Your task to perform on an android device: open device folders in google photos Image 0: 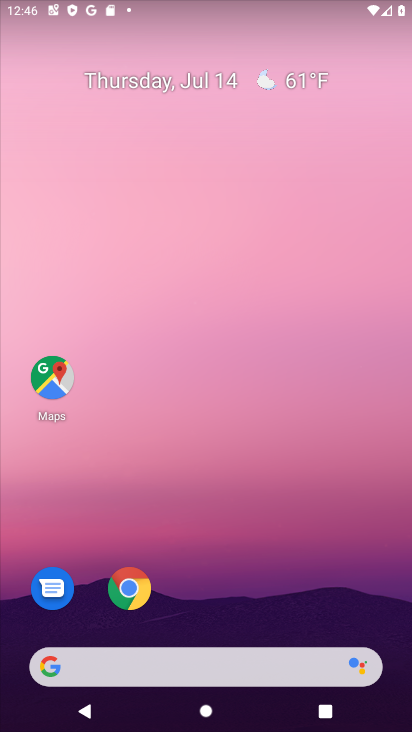
Step 0: drag from (218, 606) to (266, 3)
Your task to perform on an android device: open device folders in google photos Image 1: 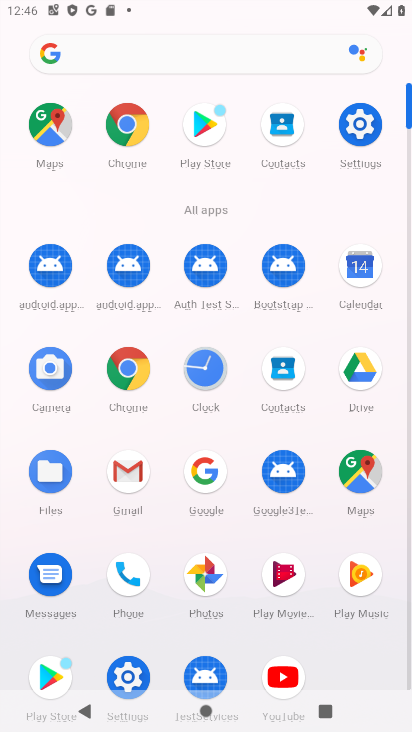
Step 1: click (207, 583)
Your task to perform on an android device: open device folders in google photos Image 2: 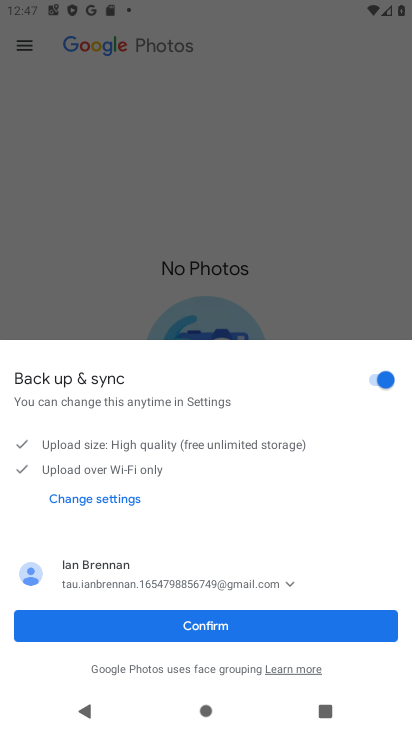
Step 2: click (202, 628)
Your task to perform on an android device: open device folders in google photos Image 3: 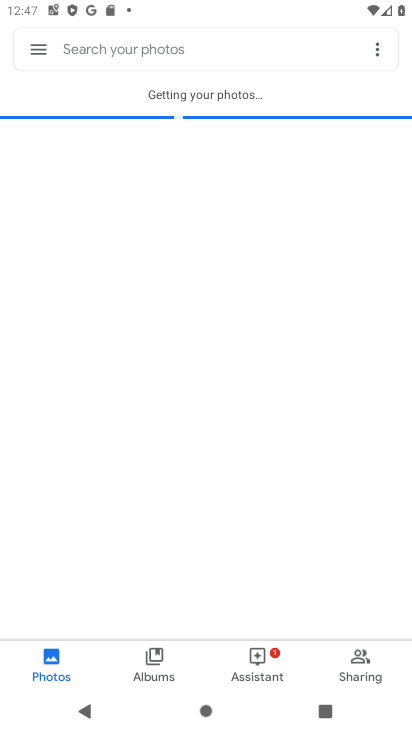
Step 3: click (41, 41)
Your task to perform on an android device: open device folders in google photos Image 4: 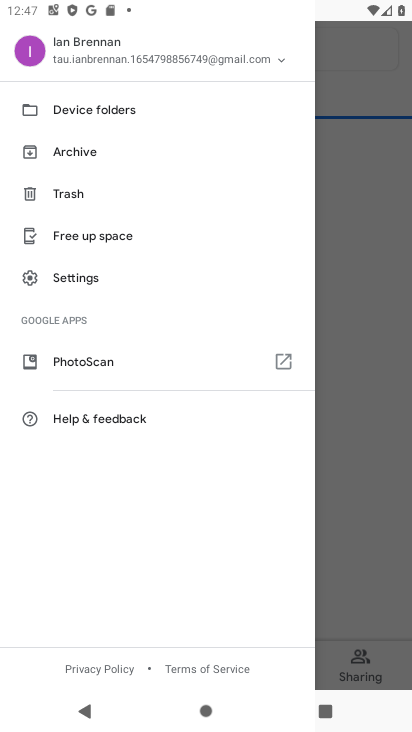
Step 4: click (114, 105)
Your task to perform on an android device: open device folders in google photos Image 5: 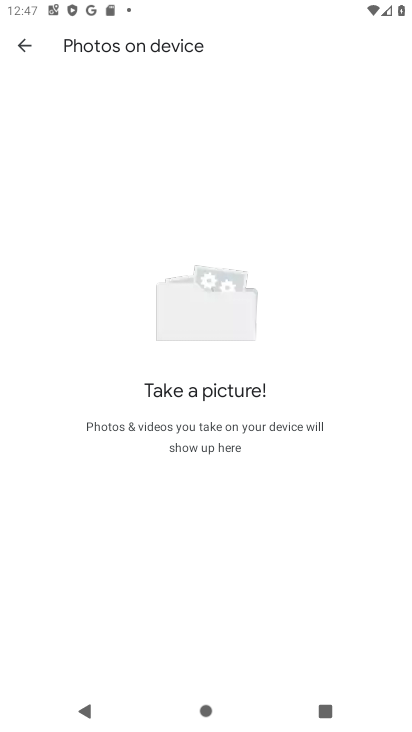
Step 5: task complete